Your task to perform on an android device: star an email in the gmail app Image 0: 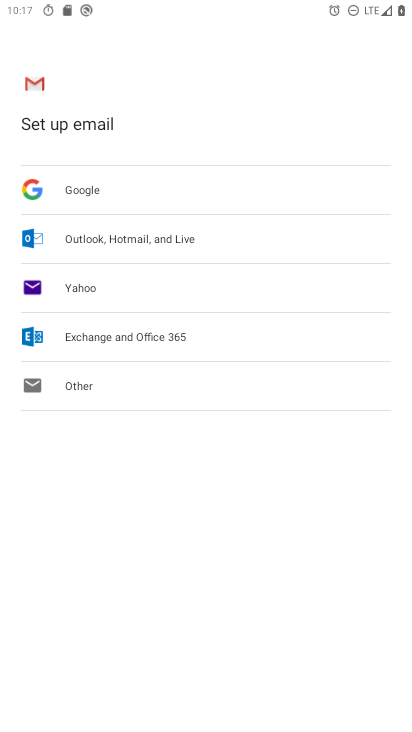
Step 0: press home button
Your task to perform on an android device: star an email in the gmail app Image 1: 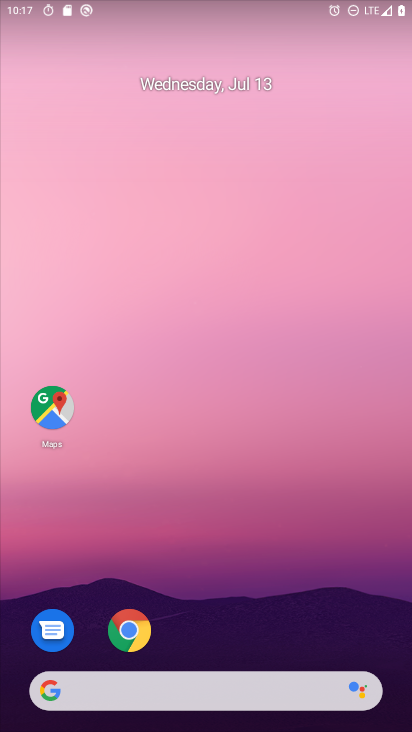
Step 1: drag from (395, 632) to (317, 150)
Your task to perform on an android device: star an email in the gmail app Image 2: 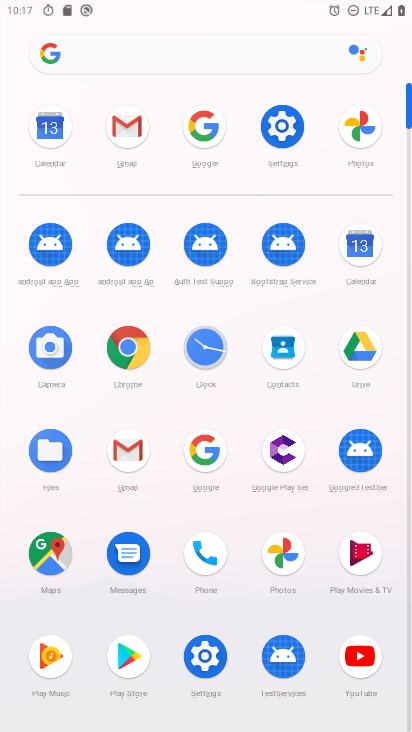
Step 2: click (134, 454)
Your task to perform on an android device: star an email in the gmail app Image 3: 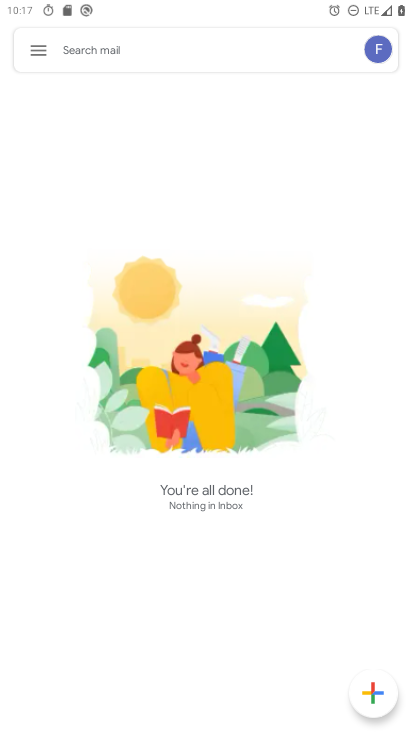
Step 3: task complete